Your task to perform on an android device: toggle notification dots Image 0: 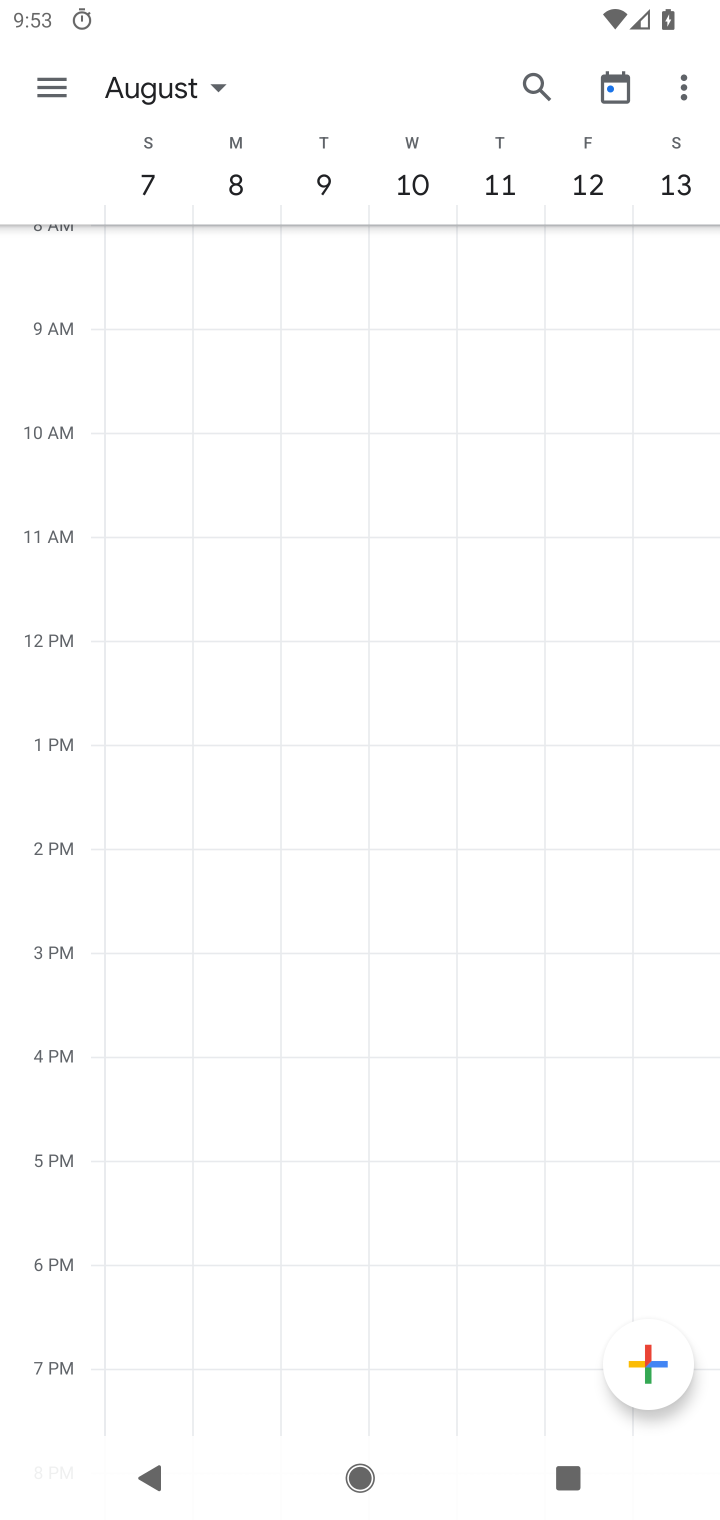
Step 0: press home button
Your task to perform on an android device: toggle notification dots Image 1: 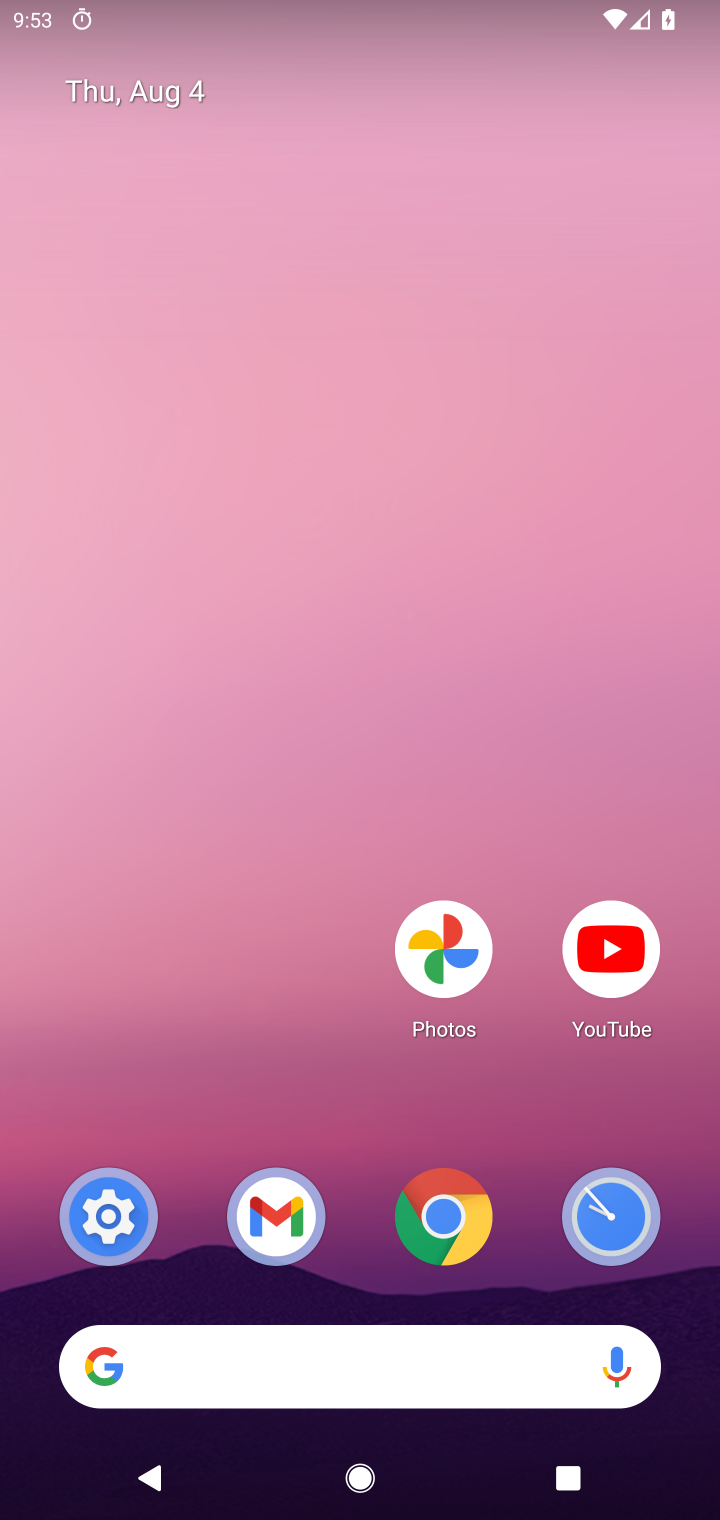
Step 1: drag from (351, 1090) to (351, 271)
Your task to perform on an android device: toggle notification dots Image 2: 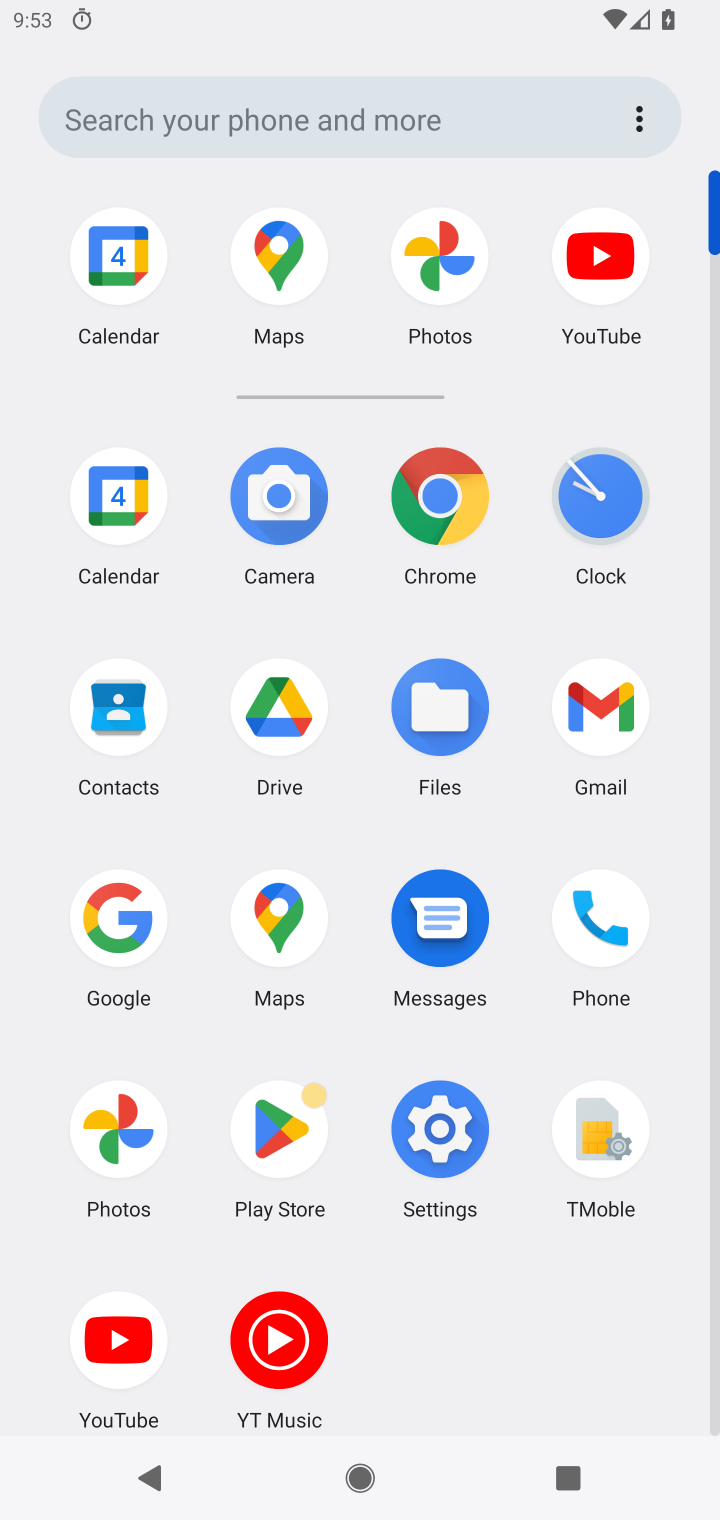
Step 2: click (454, 1122)
Your task to perform on an android device: toggle notification dots Image 3: 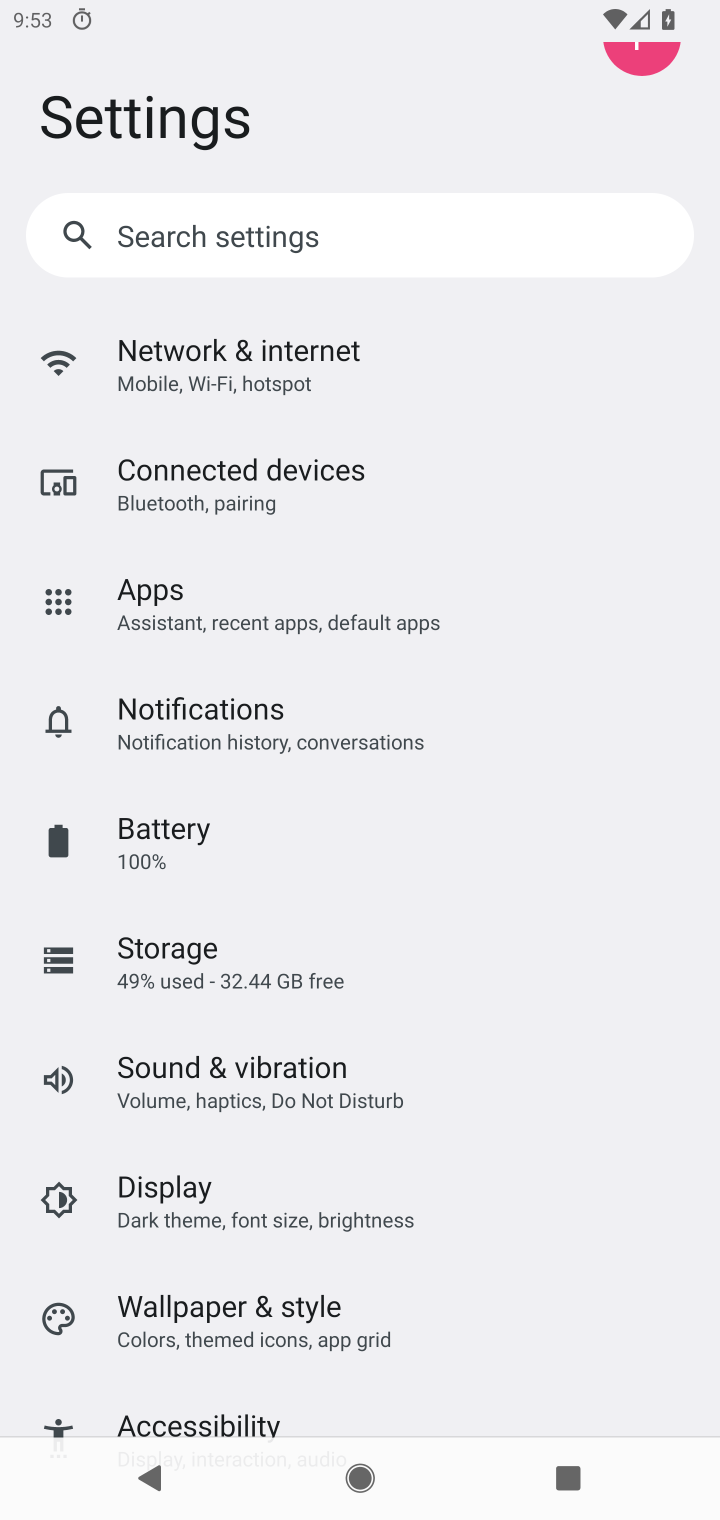
Step 3: click (227, 714)
Your task to perform on an android device: toggle notification dots Image 4: 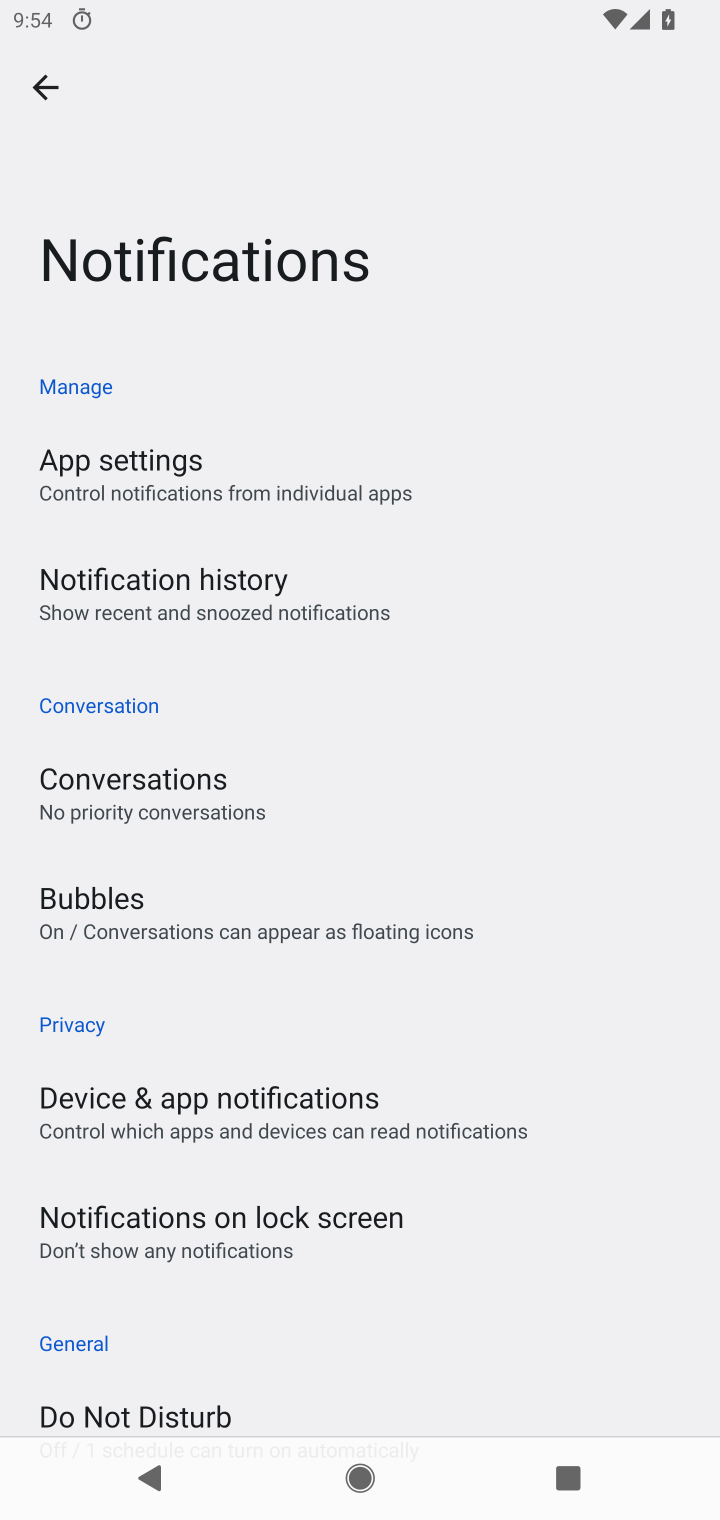
Step 4: task complete